Your task to perform on an android device: Open calendar and show me the second week of next month Image 0: 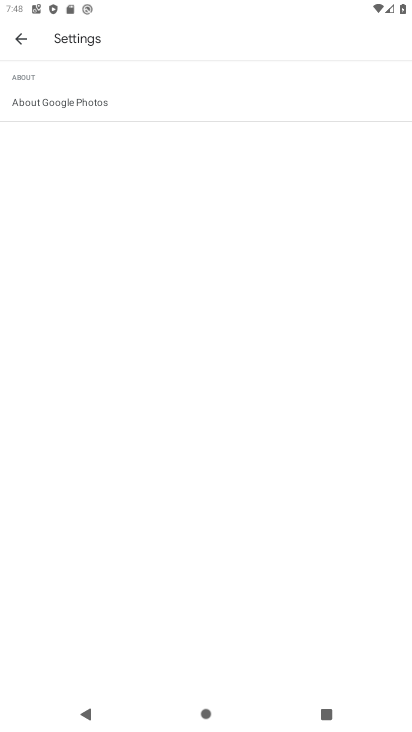
Step 0: press home button
Your task to perform on an android device: Open calendar and show me the second week of next month Image 1: 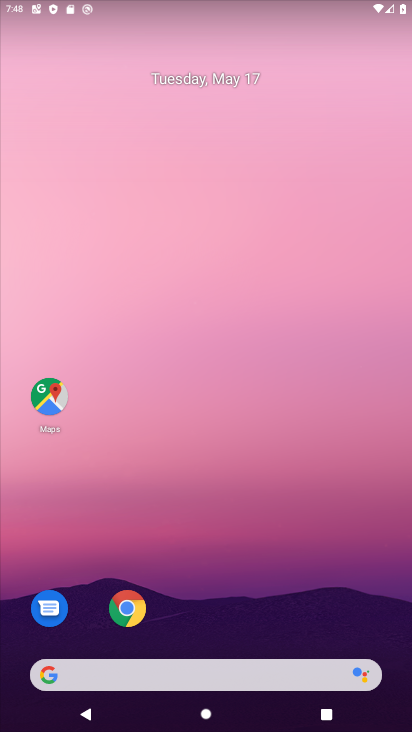
Step 1: click (232, 78)
Your task to perform on an android device: Open calendar and show me the second week of next month Image 2: 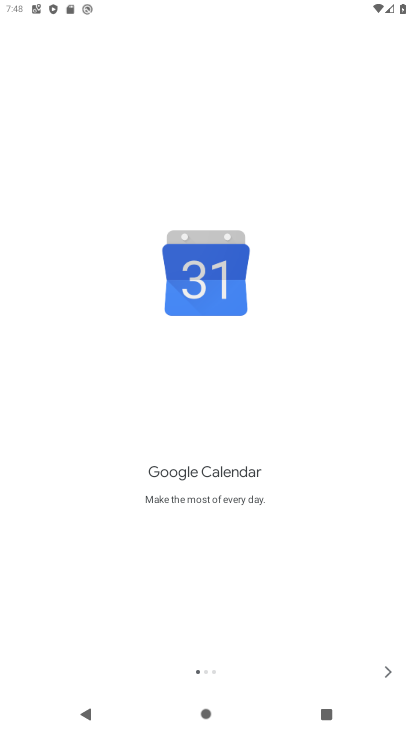
Step 2: click (381, 676)
Your task to perform on an android device: Open calendar and show me the second week of next month Image 3: 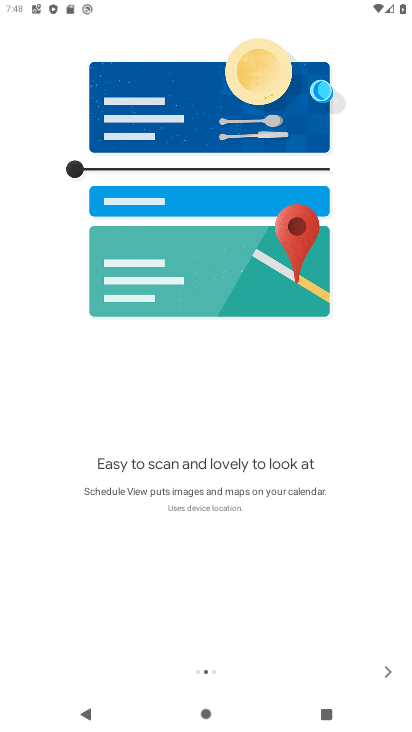
Step 3: click (381, 676)
Your task to perform on an android device: Open calendar and show me the second week of next month Image 4: 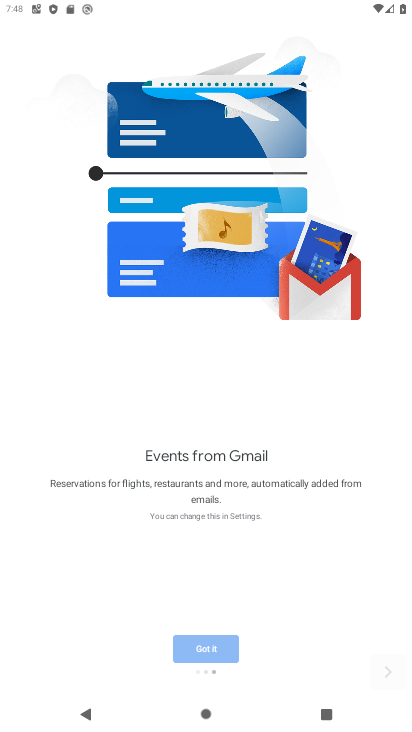
Step 4: click (381, 676)
Your task to perform on an android device: Open calendar and show me the second week of next month Image 5: 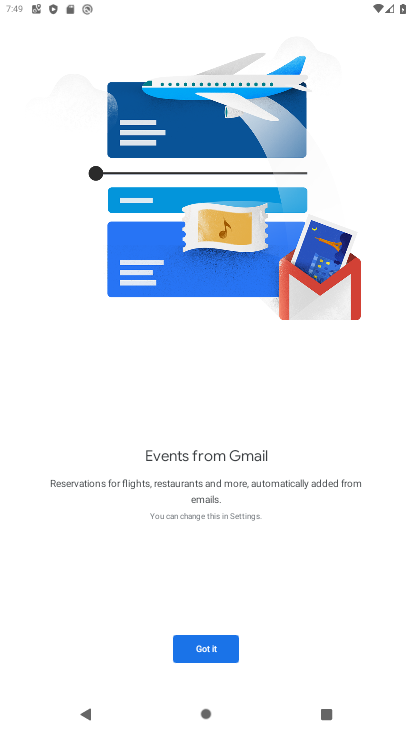
Step 5: click (216, 651)
Your task to perform on an android device: Open calendar and show me the second week of next month Image 6: 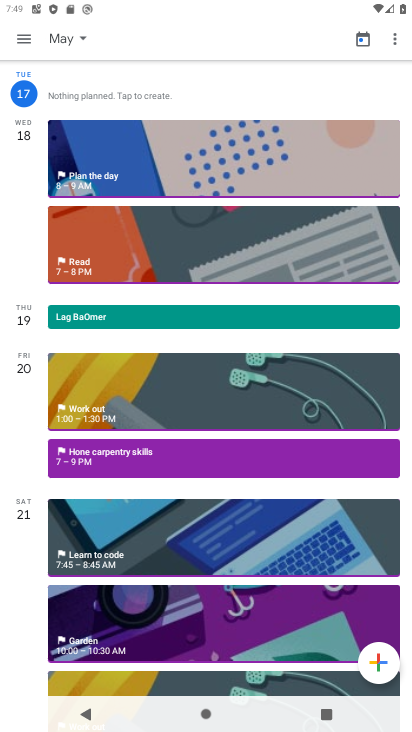
Step 6: click (66, 38)
Your task to perform on an android device: Open calendar and show me the second week of next month Image 7: 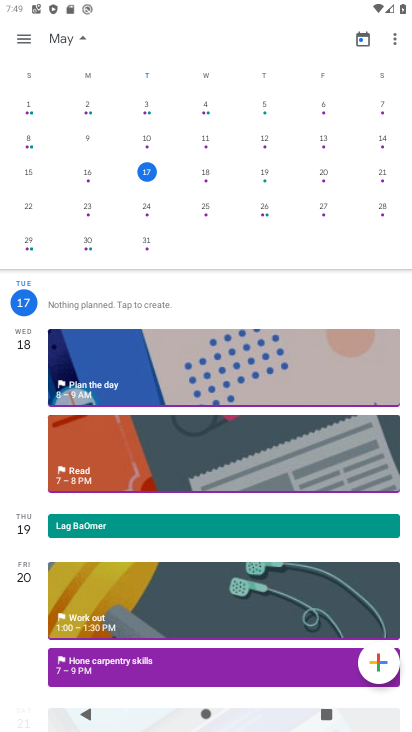
Step 7: click (149, 205)
Your task to perform on an android device: Open calendar and show me the second week of next month Image 8: 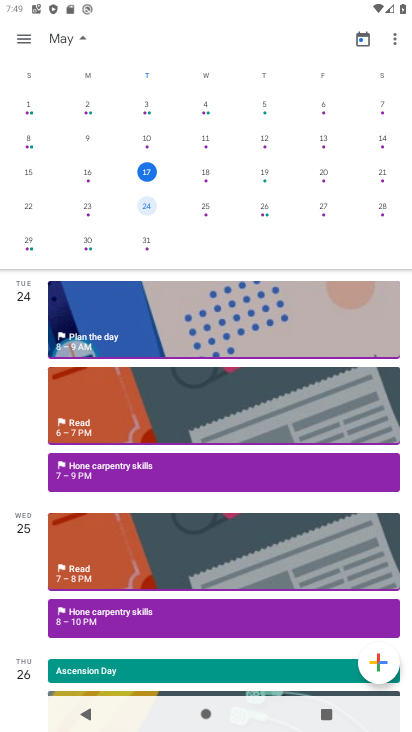
Step 8: task complete